Your task to perform on an android device: Go to calendar. Show me events next week Image 0: 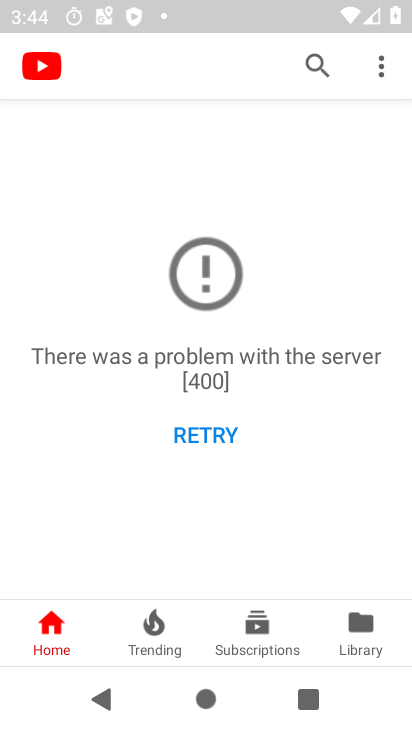
Step 0: press back button
Your task to perform on an android device: Go to calendar. Show me events next week Image 1: 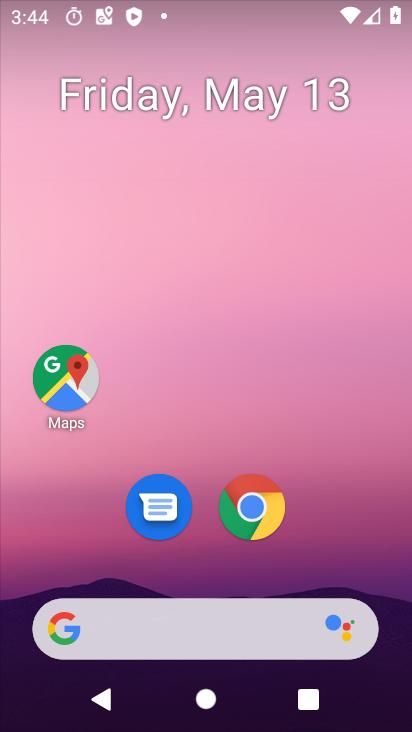
Step 1: drag from (272, 560) to (223, 102)
Your task to perform on an android device: Go to calendar. Show me events next week Image 2: 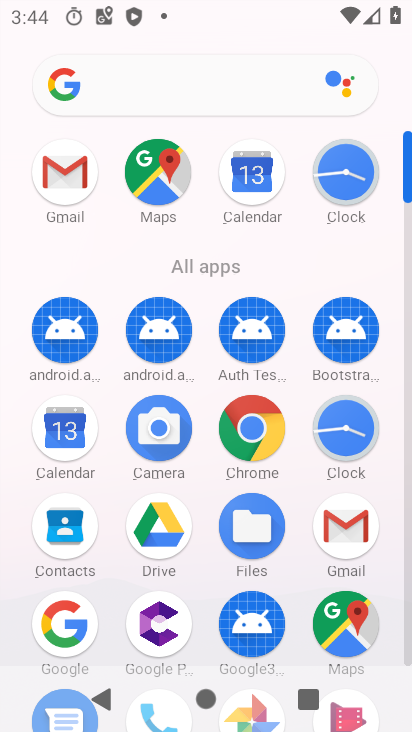
Step 2: click (256, 183)
Your task to perform on an android device: Go to calendar. Show me events next week Image 3: 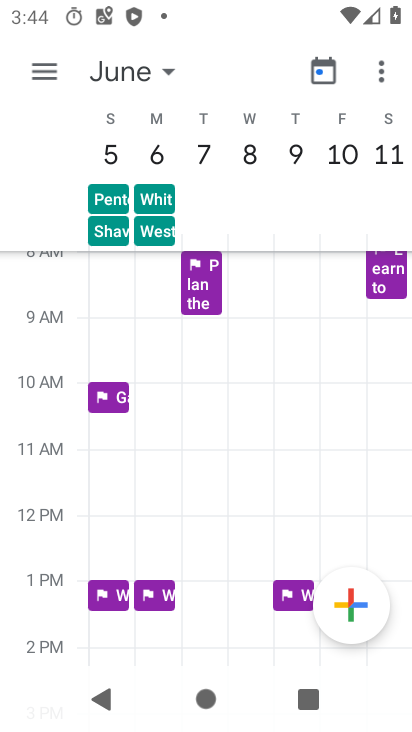
Step 3: task complete